Your task to perform on an android device: Go to privacy settings Image 0: 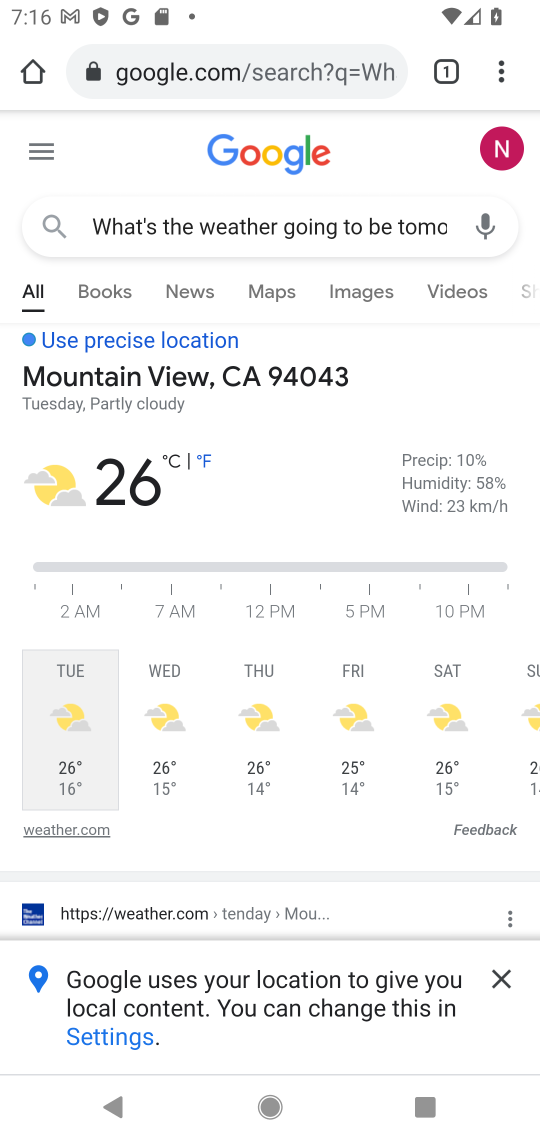
Step 0: press home button
Your task to perform on an android device: Go to privacy settings Image 1: 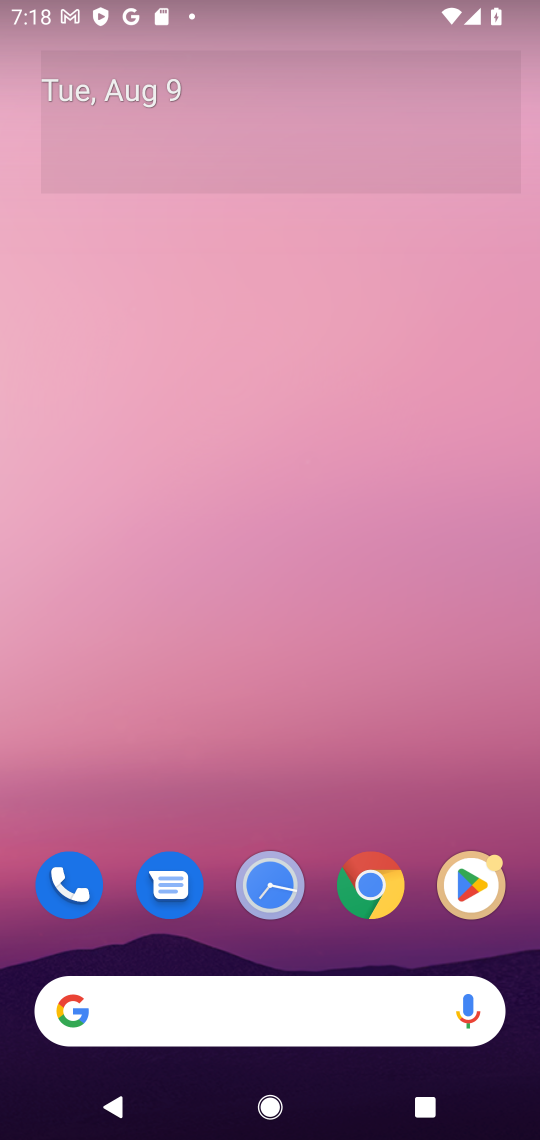
Step 1: click (372, 868)
Your task to perform on an android device: Go to privacy settings Image 2: 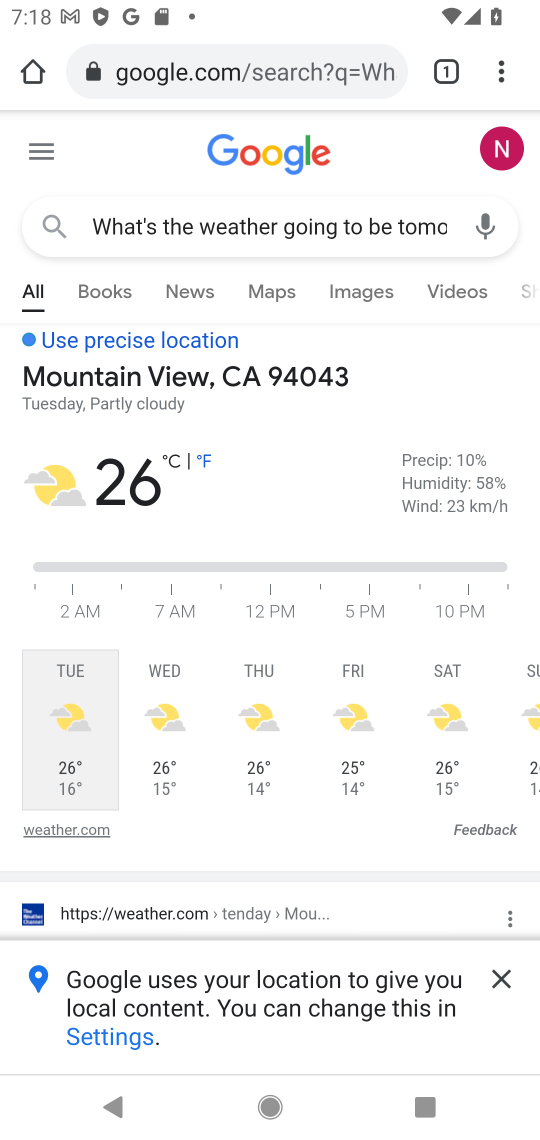
Step 2: press home button
Your task to perform on an android device: Go to privacy settings Image 3: 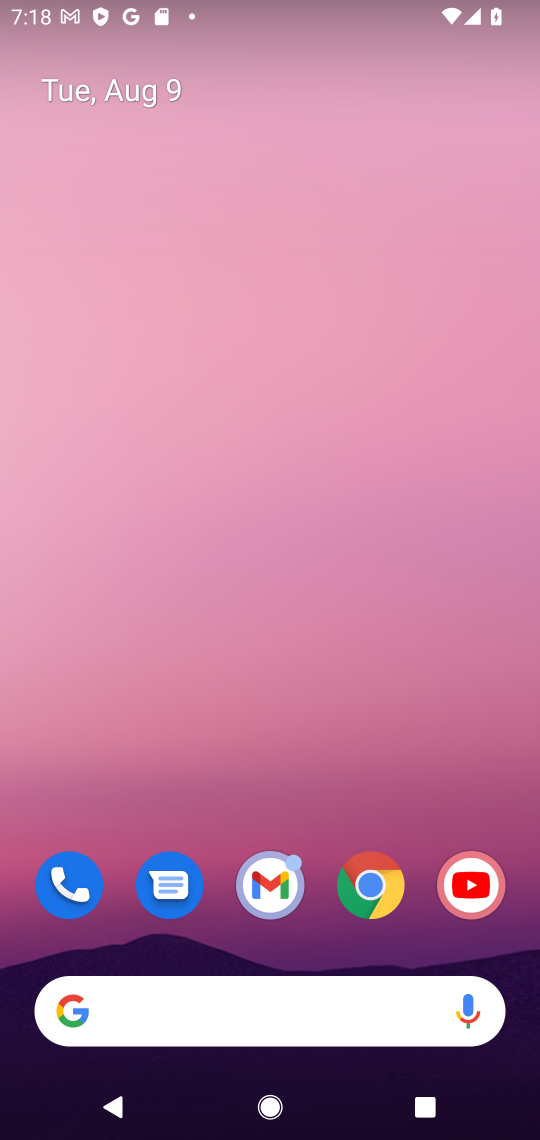
Step 3: drag from (279, 727) to (387, 180)
Your task to perform on an android device: Go to privacy settings Image 4: 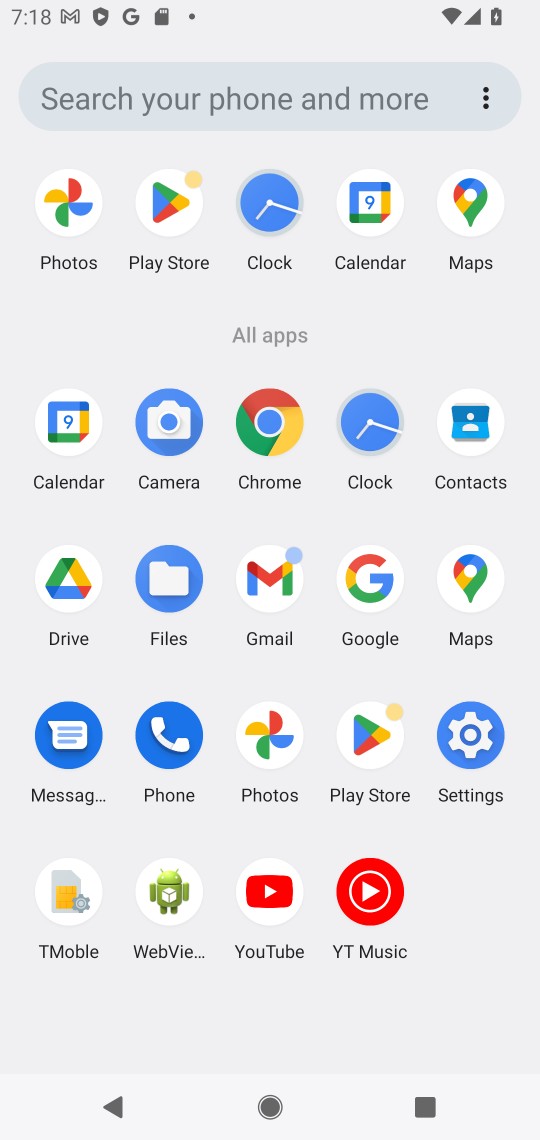
Step 4: click (499, 740)
Your task to perform on an android device: Go to privacy settings Image 5: 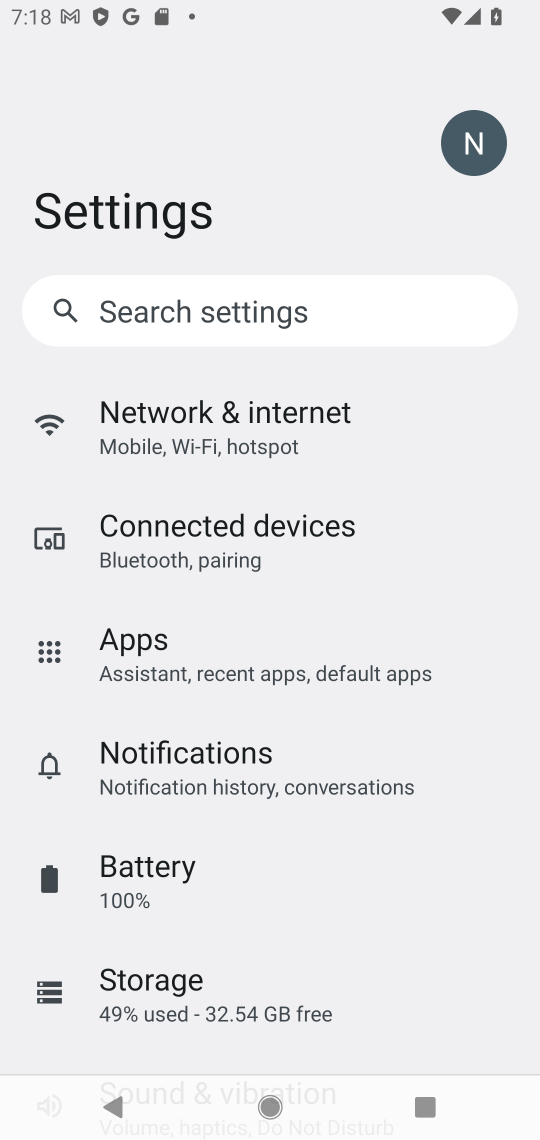
Step 5: task complete